Your task to perform on an android device: open a bookmark in the chrome app Image 0: 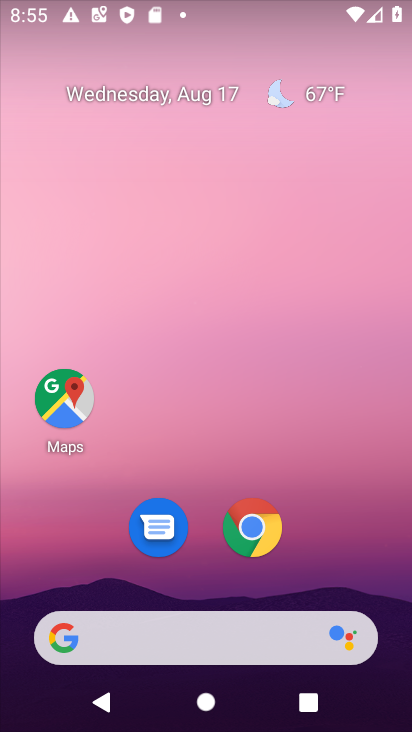
Step 0: click (257, 521)
Your task to perform on an android device: open a bookmark in the chrome app Image 1: 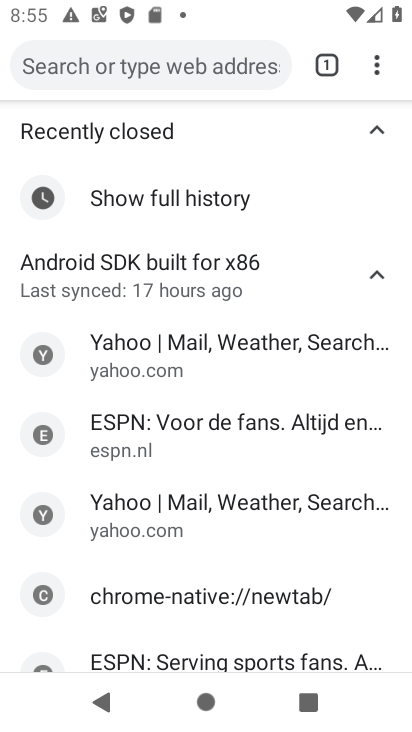
Step 1: click (387, 65)
Your task to perform on an android device: open a bookmark in the chrome app Image 2: 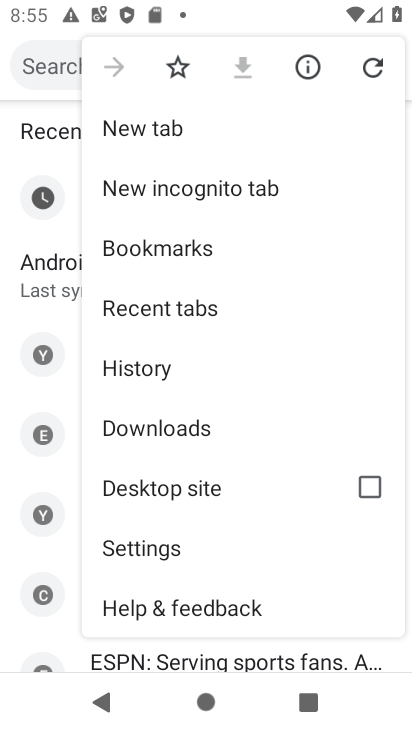
Step 2: click (205, 258)
Your task to perform on an android device: open a bookmark in the chrome app Image 3: 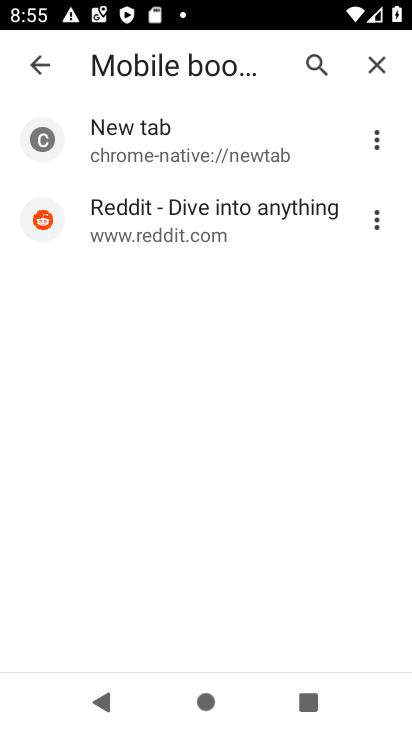
Step 3: click (240, 208)
Your task to perform on an android device: open a bookmark in the chrome app Image 4: 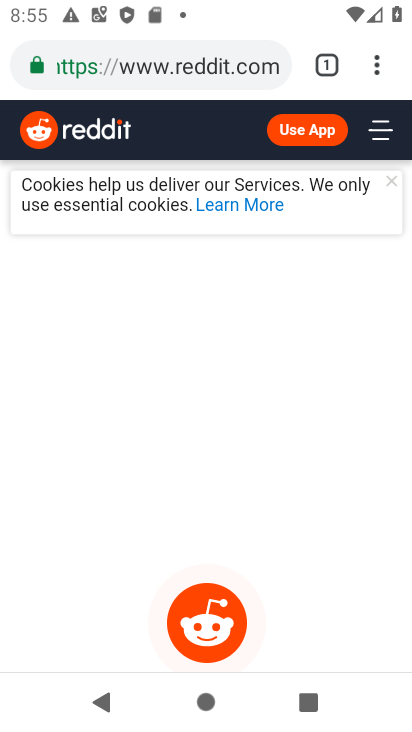
Step 4: task complete